Your task to perform on an android device: Toggle the flashlight Image 0: 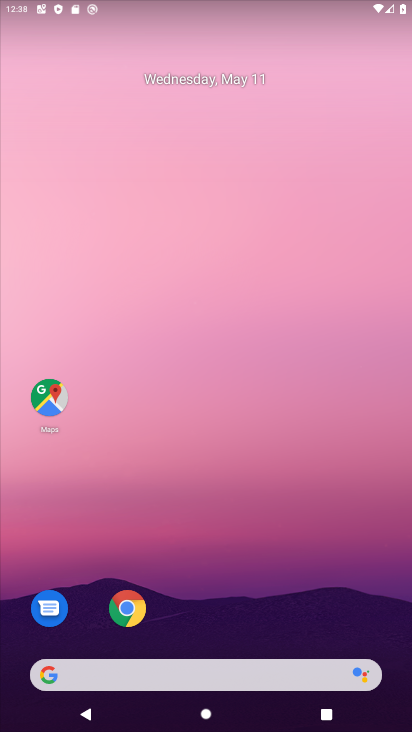
Step 0: drag from (267, 8) to (272, 466)
Your task to perform on an android device: Toggle the flashlight Image 1: 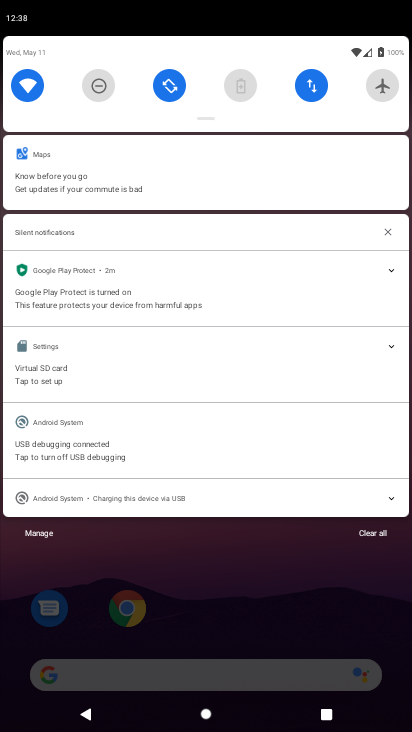
Step 1: task complete